Your task to perform on an android device: Open Chrome and go to the settings page Image 0: 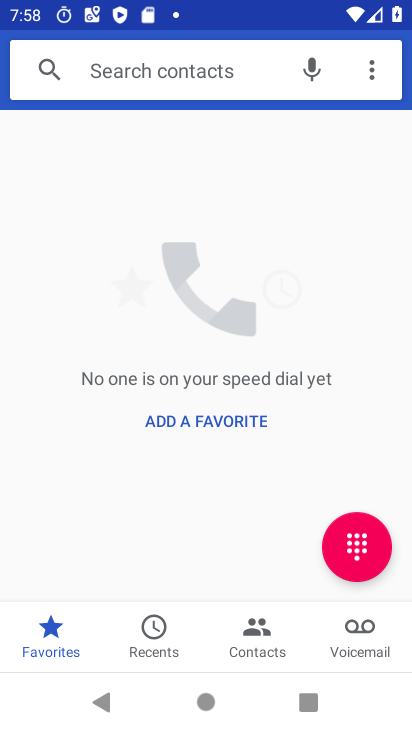
Step 0: press home button
Your task to perform on an android device: Open Chrome and go to the settings page Image 1: 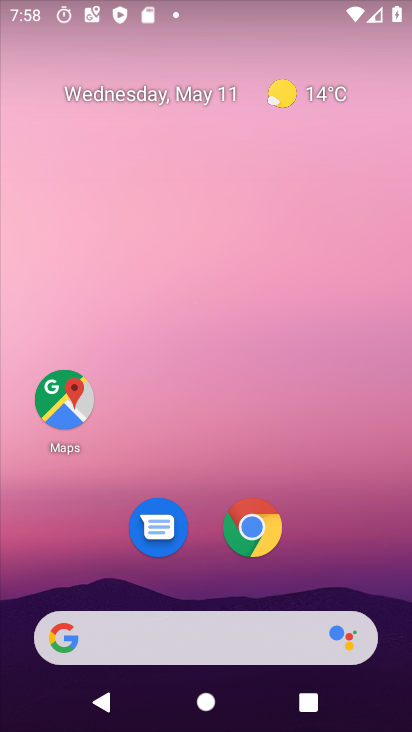
Step 1: click (251, 541)
Your task to perform on an android device: Open Chrome and go to the settings page Image 2: 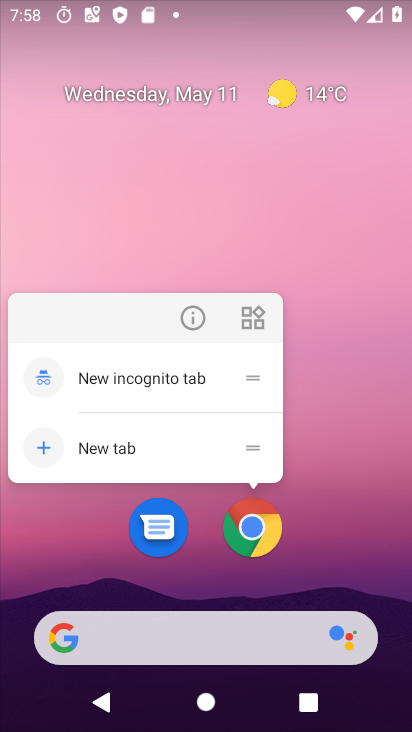
Step 2: click (265, 543)
Your task to perform on an android device: Open Chrome and go to the settings page Image 3: 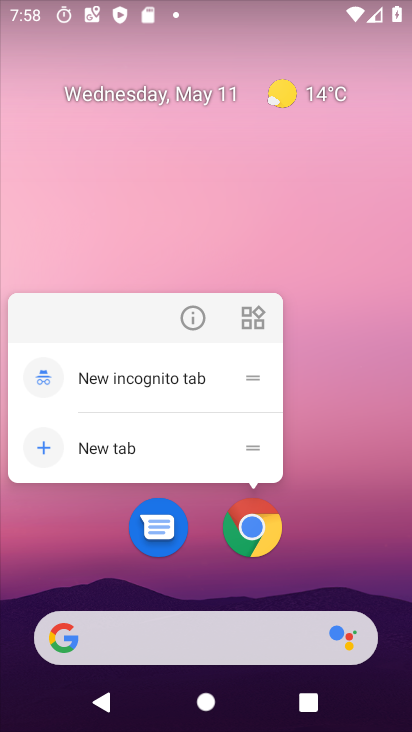
Step 3: click (265, 543)
Your task to perform on an android device: Open Chrome and go to the settings page Image 4: 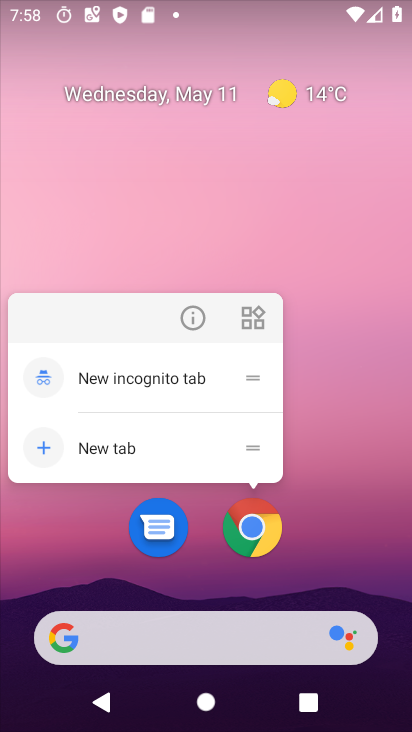
Step 4: click (258, 543)
Your task to perform on an android device: Open Chrome and go to the settings page Image 5: 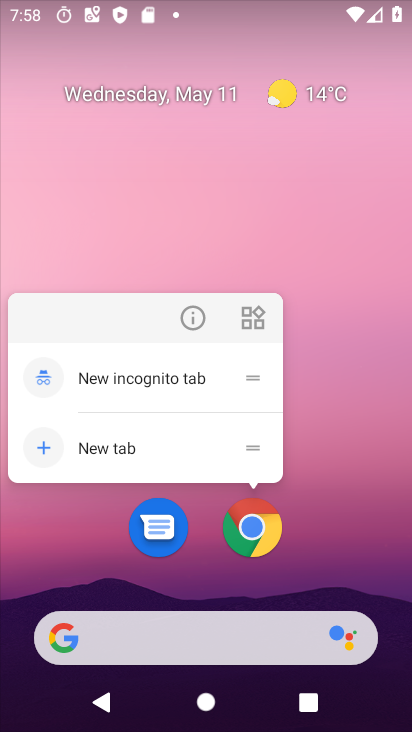
Step 5: click (260, 543)
Your task to perform on an android device: Open Chrome and go to the settings page Image 6: 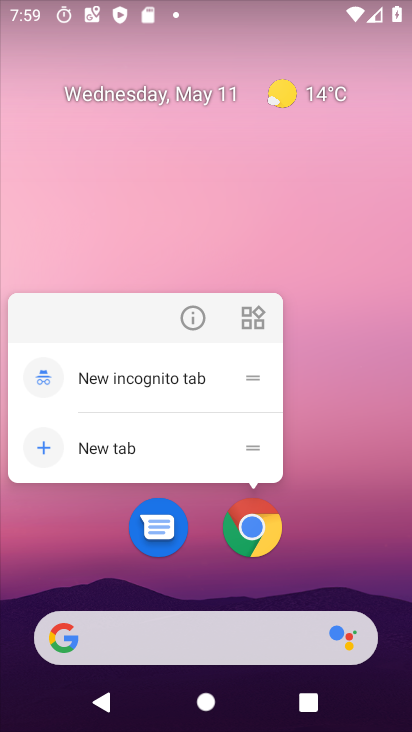
Step 6: click (245, 546)
Your task to perform on an android device: Open Chrome and go to the settings page Image 7: 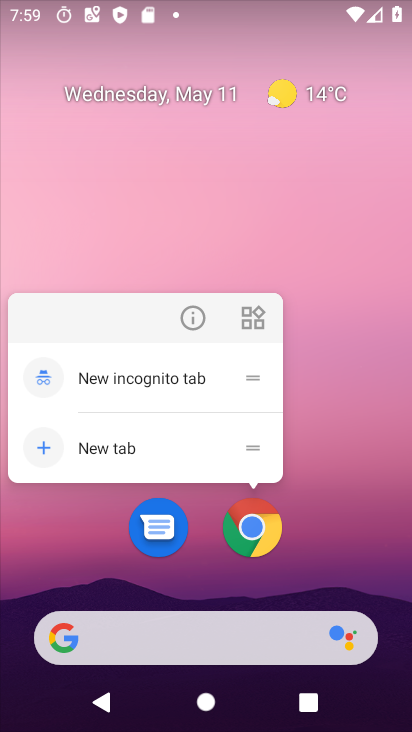
Step 7: click (275, 527)
Your task to perform on an android device: Open Chrome and go to the settings page Image 8: 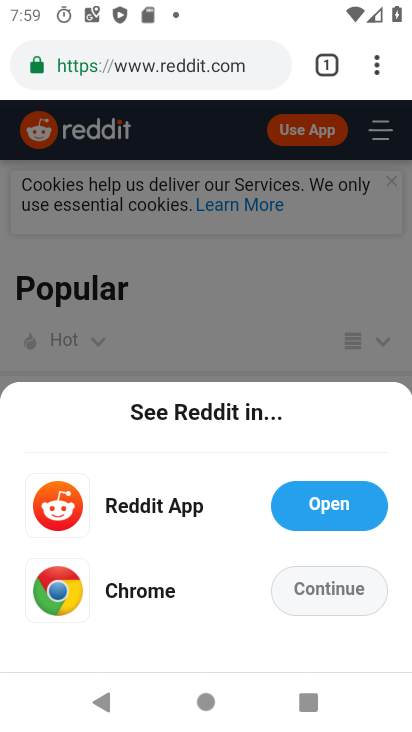
Step 8: click (384, 76)
Your task to perform on an android device: Open Chrome and go to the settings page Image 9: 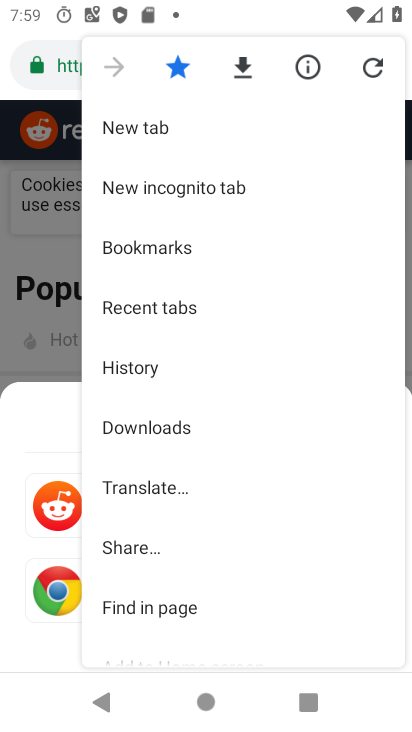
Step 9: drag from (201, 531) to (229, 218)
Your task to perform on an android device: Open Chrome and go to the settings page Image 10: 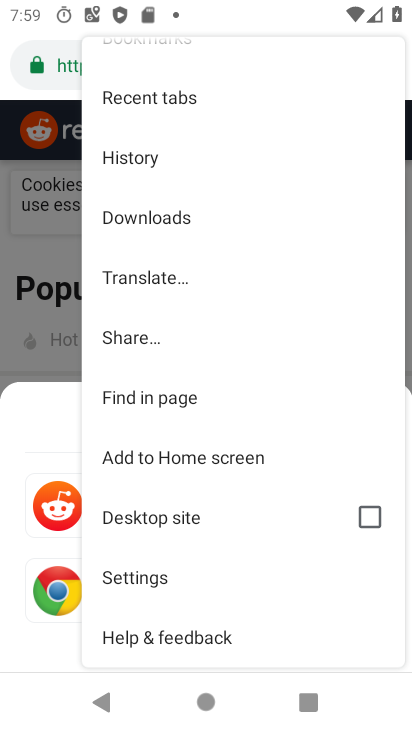
Step 10: click (195, 577)
Your task to perform on an android device: Open Chrome and go to the settings page Image 11: 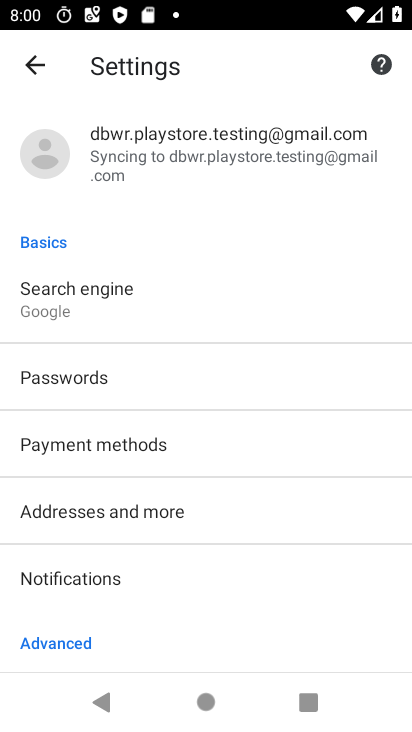
Step 11: task complete